Your task to perform on an android device: Go to Amazon Image 0: 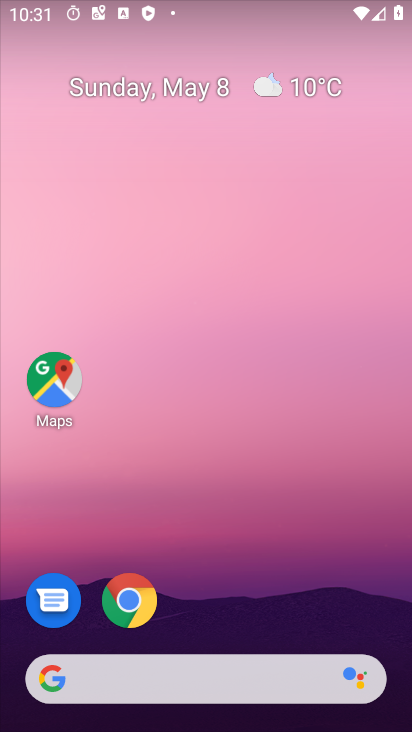
Step 0: drag from (223, 629) to (272, 251)
Your task to perform on an android device: Go to Amazon Image 1: 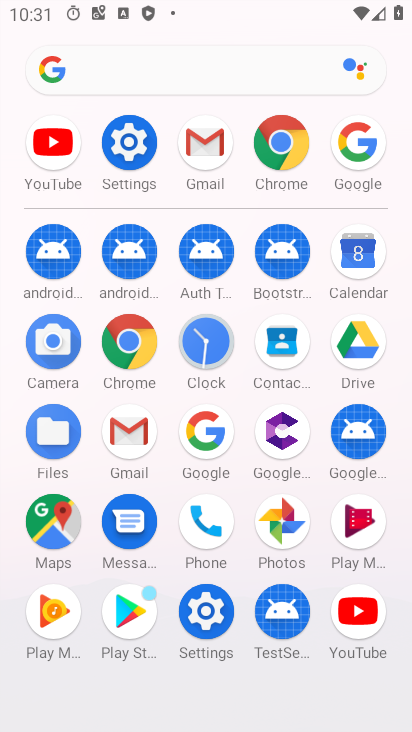
Step 1: click (284, 156)
Your task to perform on an android device: Go to Amazon Image 2: 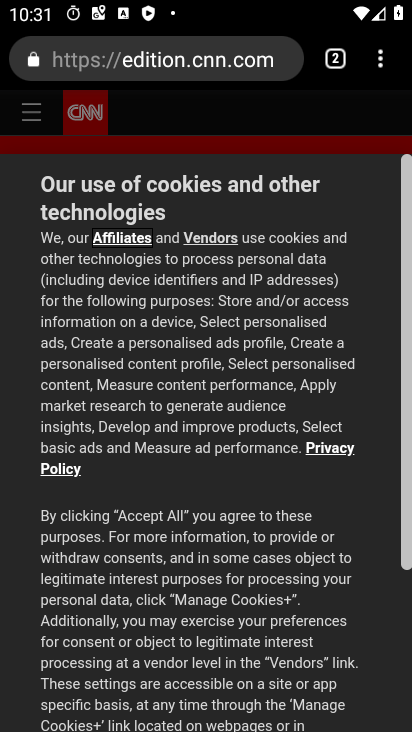
Step 2: click (274, 66)
Your task to perform on an android device: Go to Amazon Image 3: 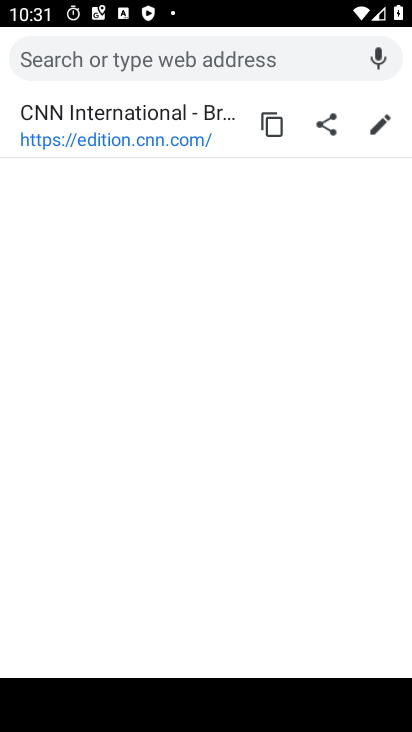
Step 3: type "amazon.com"
Your task to perform on an android device: Go to Amazon Image 4: 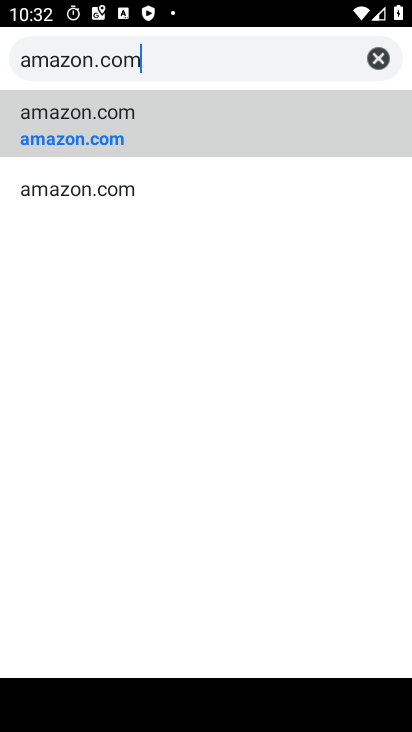
Step 4: click (284, 141)
Your task to perform on an android device: Go to Amazon Image 5: 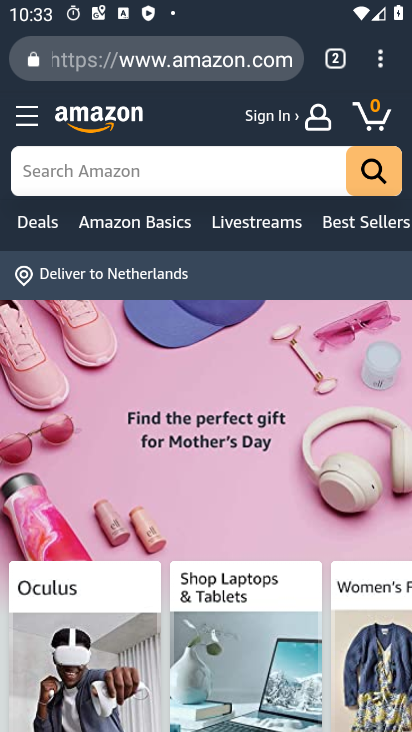
Step 5: task complete